Your task to perform on an android device: turn off location Image 0: 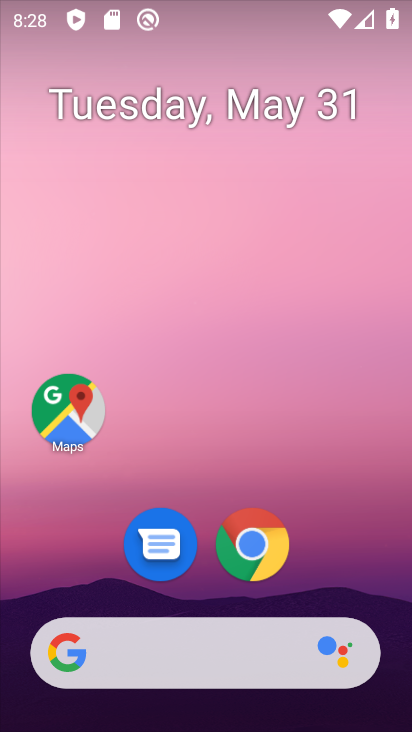
Step 0: drag from (310, 604) to (407, 96)
Your task to perform on an android device: turn off location Image 1: 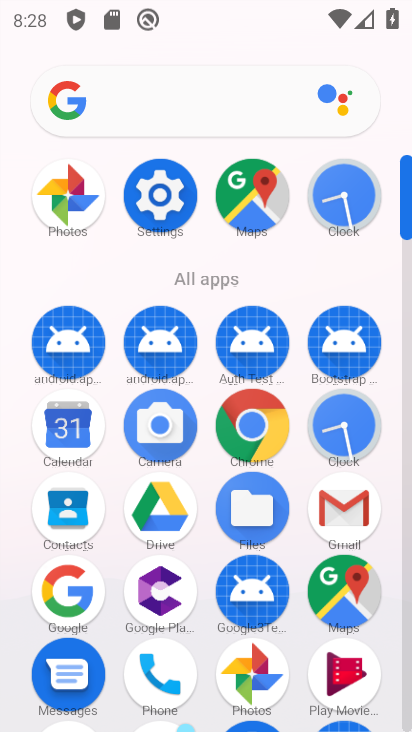
Step 1: click (149, 199)
Your task to perform on an android device: turn off location Image 2: 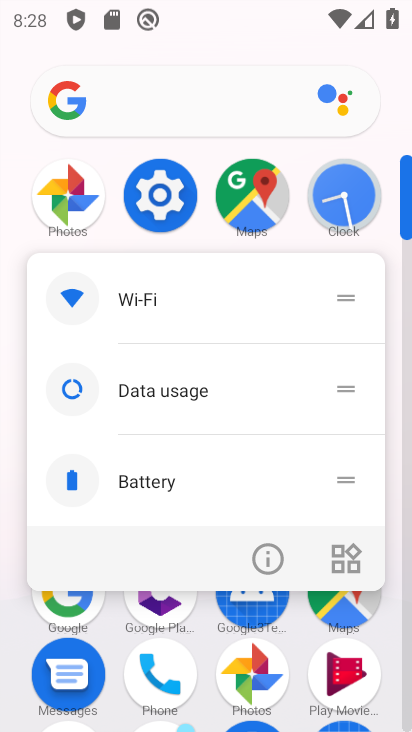
Step 2: click (151, 200)
Your task to perform on an android device: turn off location Image 3: 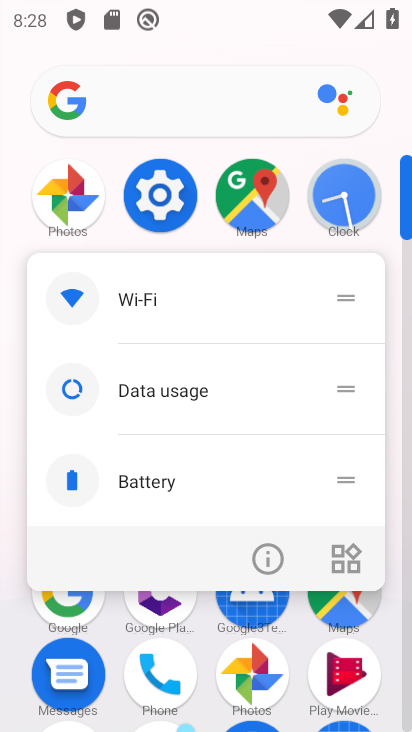
Step 3: click (167, 206)
Your task to perform on an android device: turn off location Image 4: 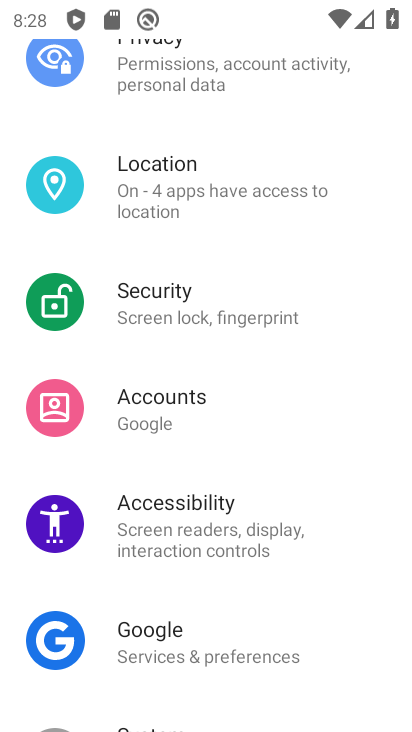
Step 4: click (192, 182)
Your task to perform on an android device: turn off location Image 5: 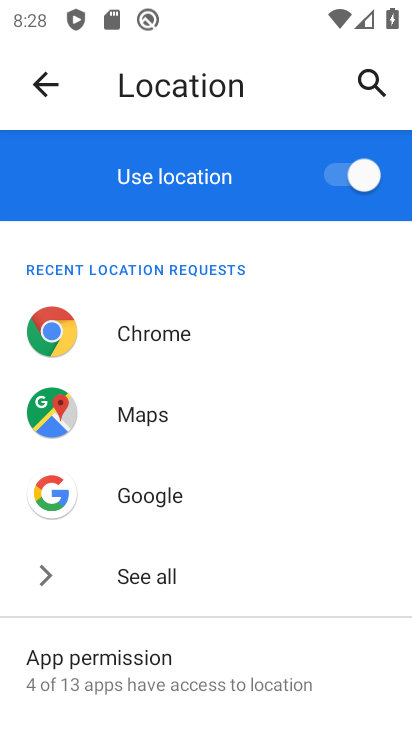
Step 5: click (355, 168)
Your task to perform on an android device: turn off location Image 6: 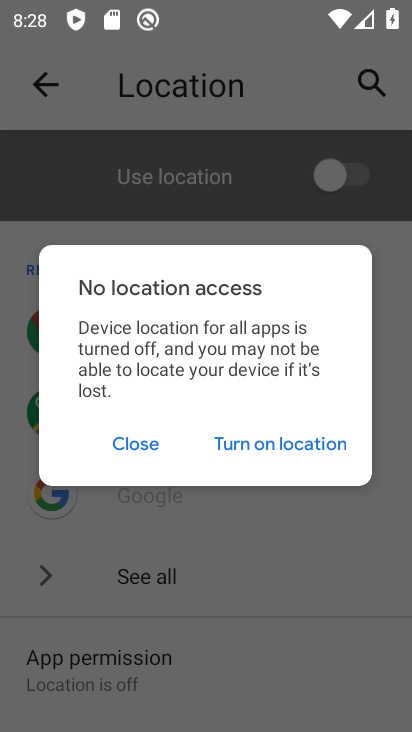
Step 6: task complete